Your task to perform on an android device: uninstall "File Manager" Image 0: 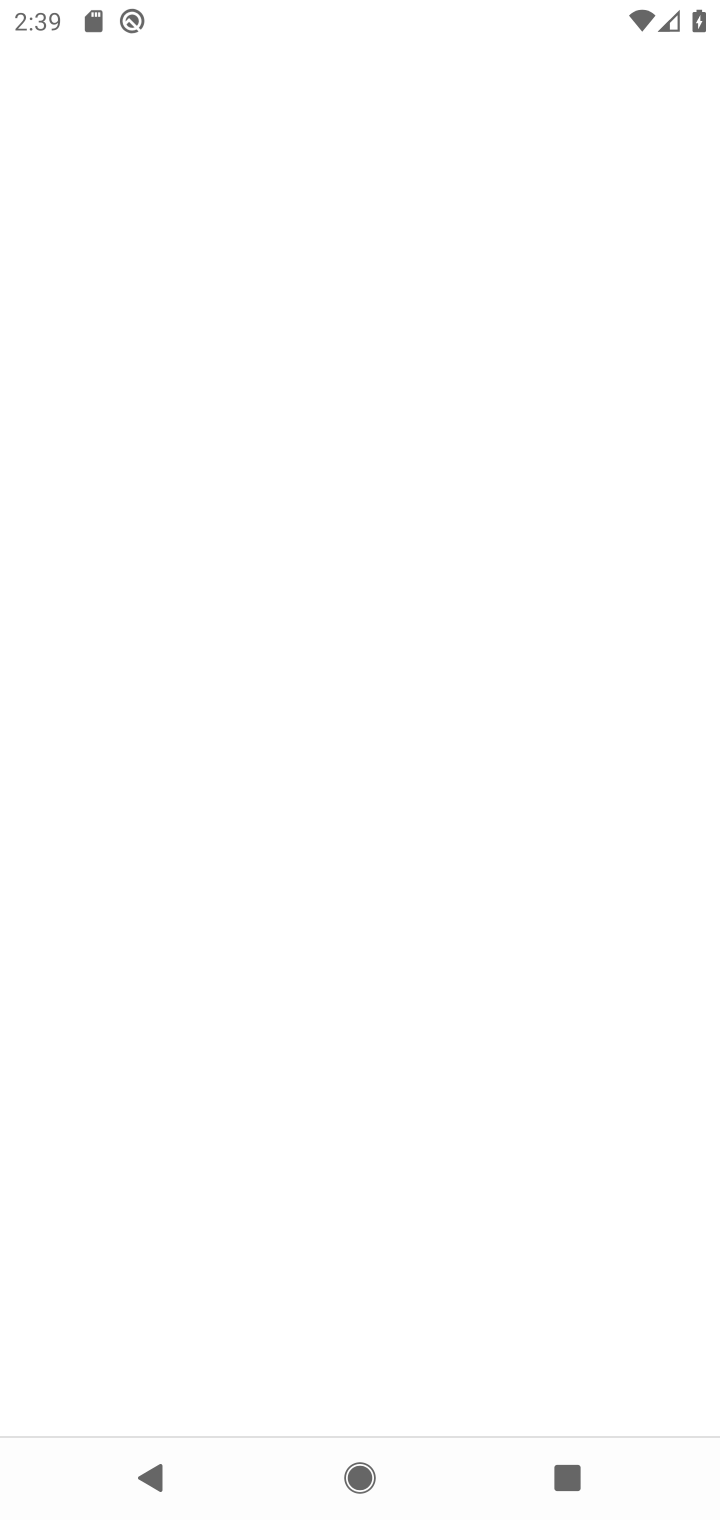
Step 0: press home button
Your task to perform on an android device: uninstall "File Manager" Image 1: 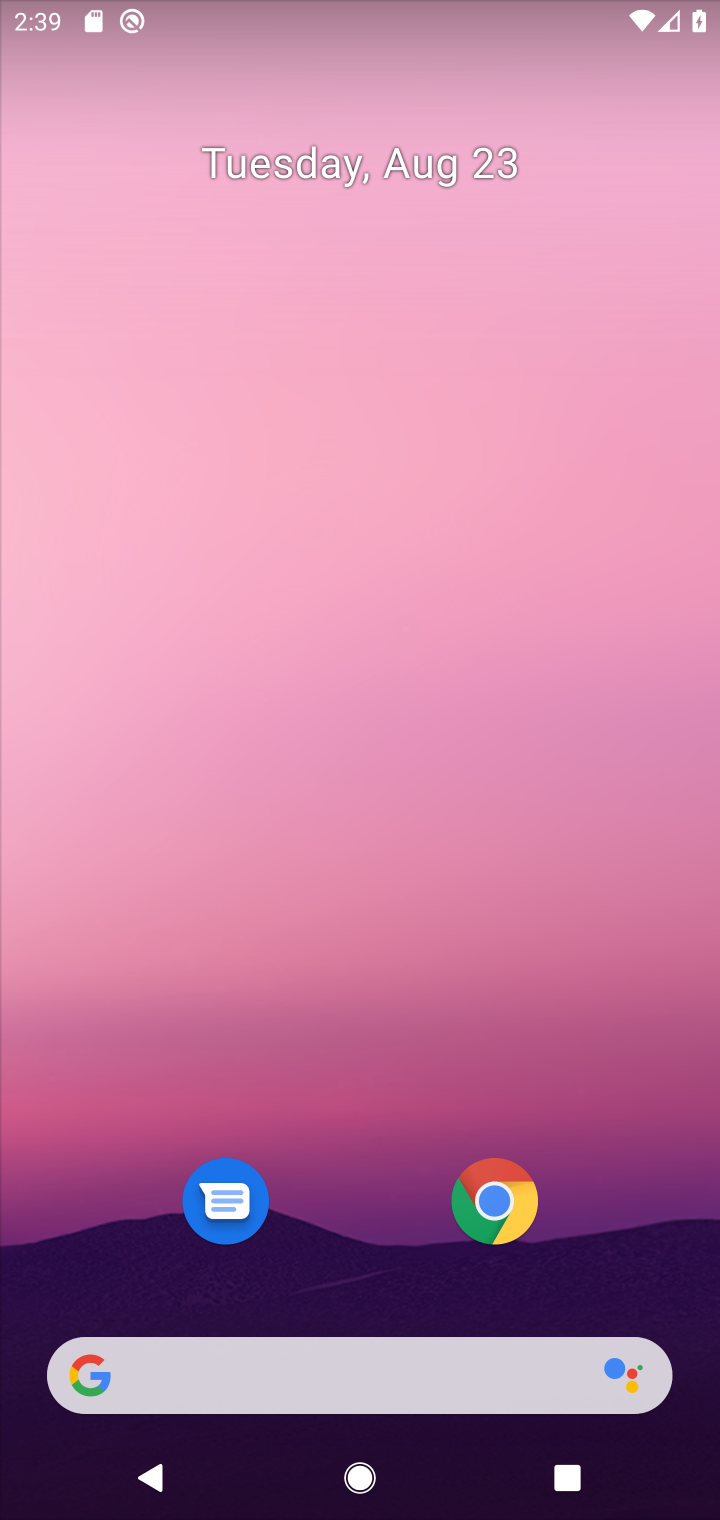
Step 1: drag from (683, 1285) to (575, 554)
Your task to perform on an android device: uninstall "File Manager" Image 2: 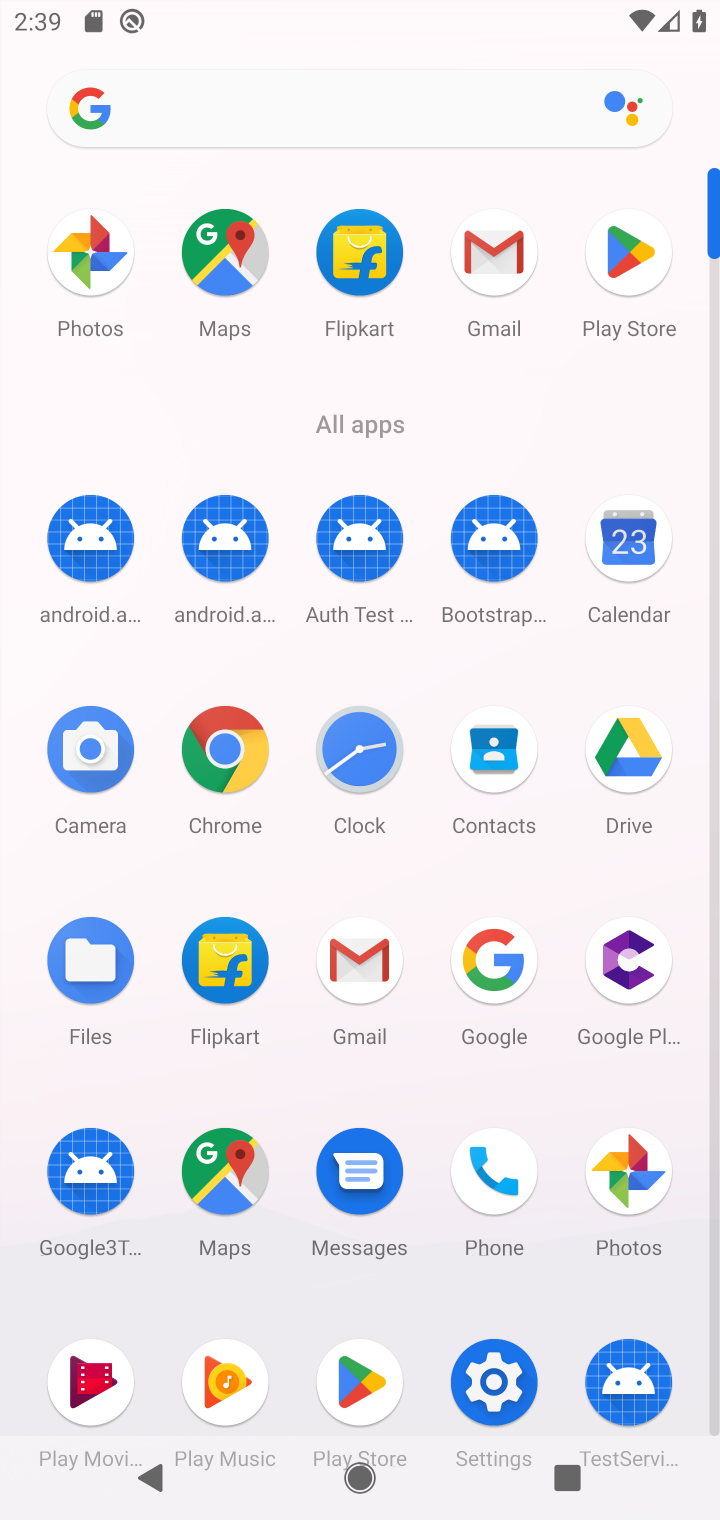
Step 2: click (715, 1380)
Your task to perform on an android device: uninstall "File Manager" Image 3: 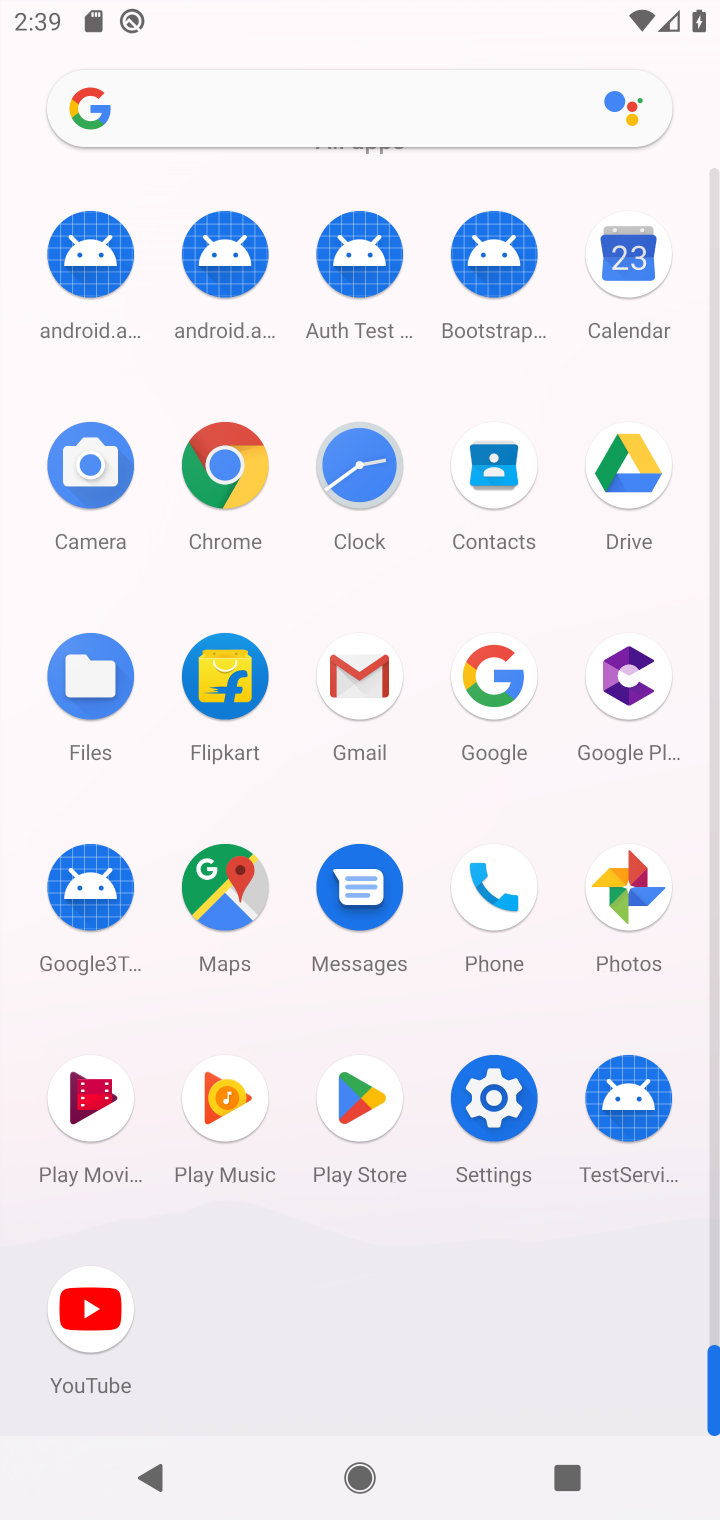
Step 3: click (363, 1090)
Your task to perform on an android device: uninstall "File Manager" Image 4: 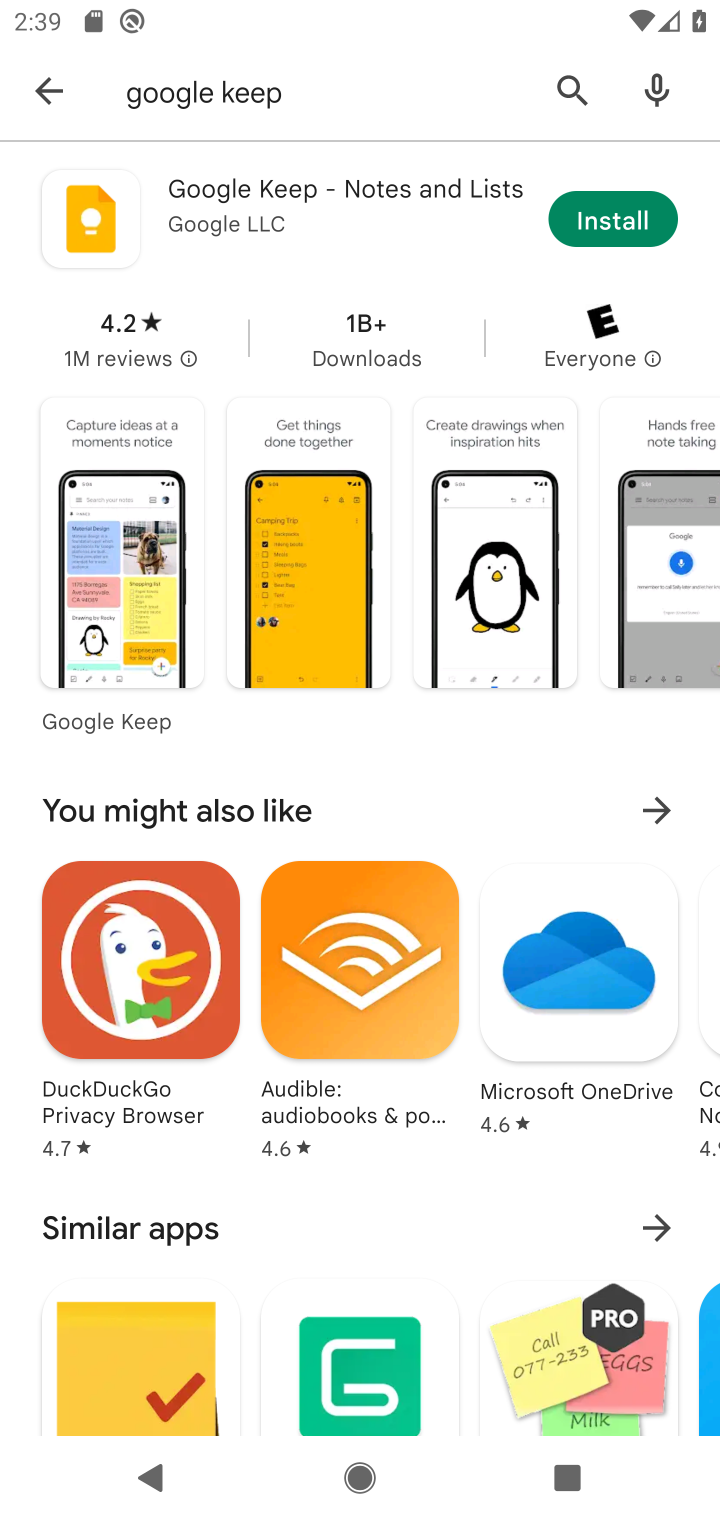
Step 4: click (550, 78)
Your task to perform on an android device: uninstall "File Manager" Image 5: 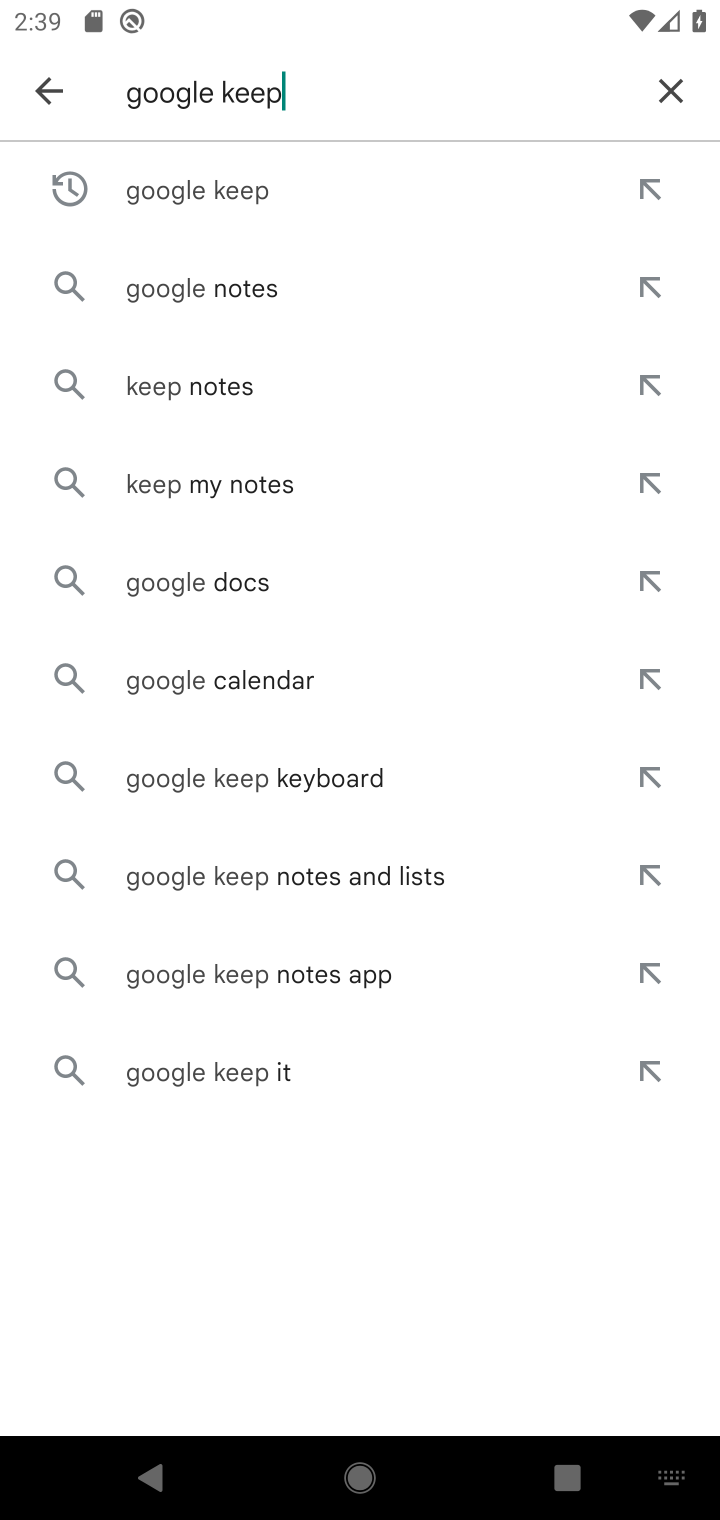
Step 5: click (678, 90)
Your task to perform on an android device: uninstall "File Manager" Image 6: 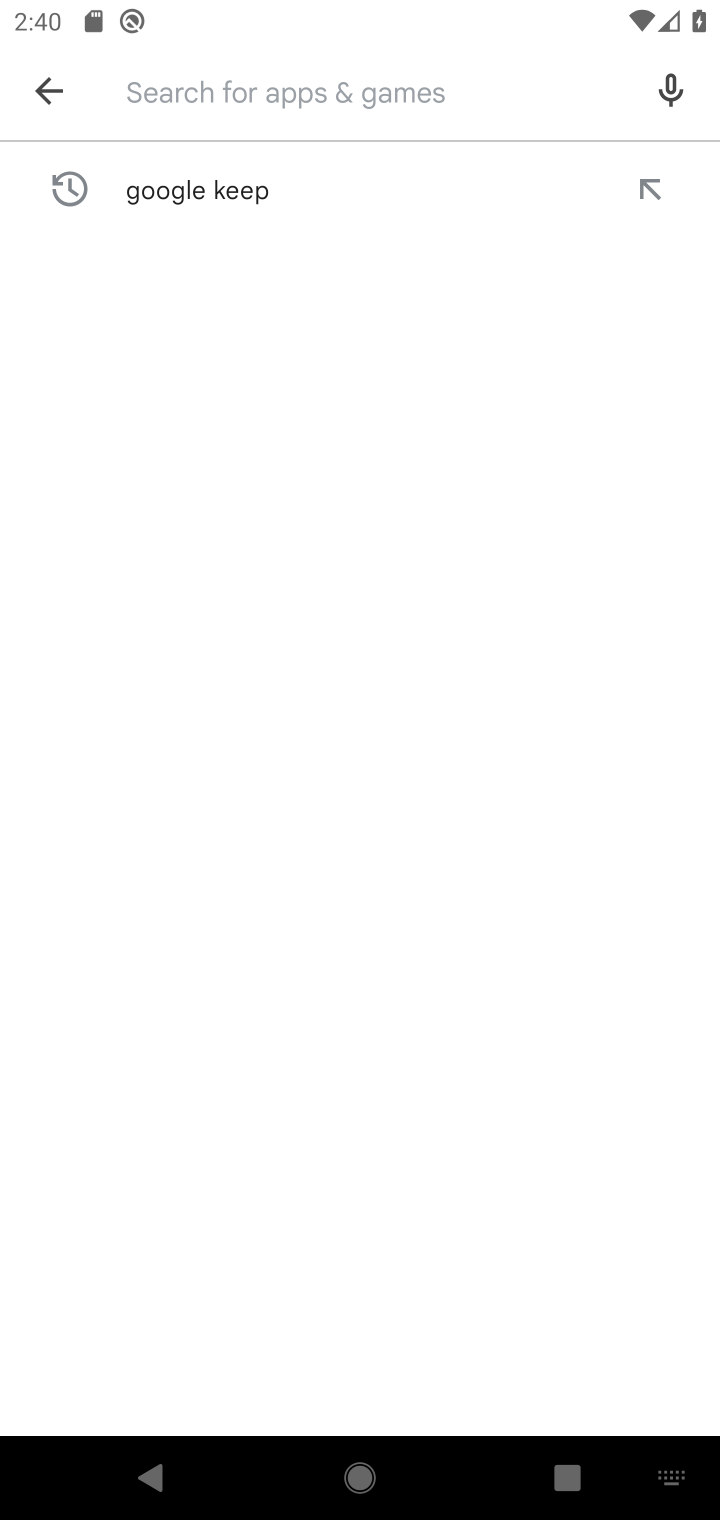
Step 6: type "File Manager"
Your task to perform on an android device: uninstall "File Manager" Image 7: 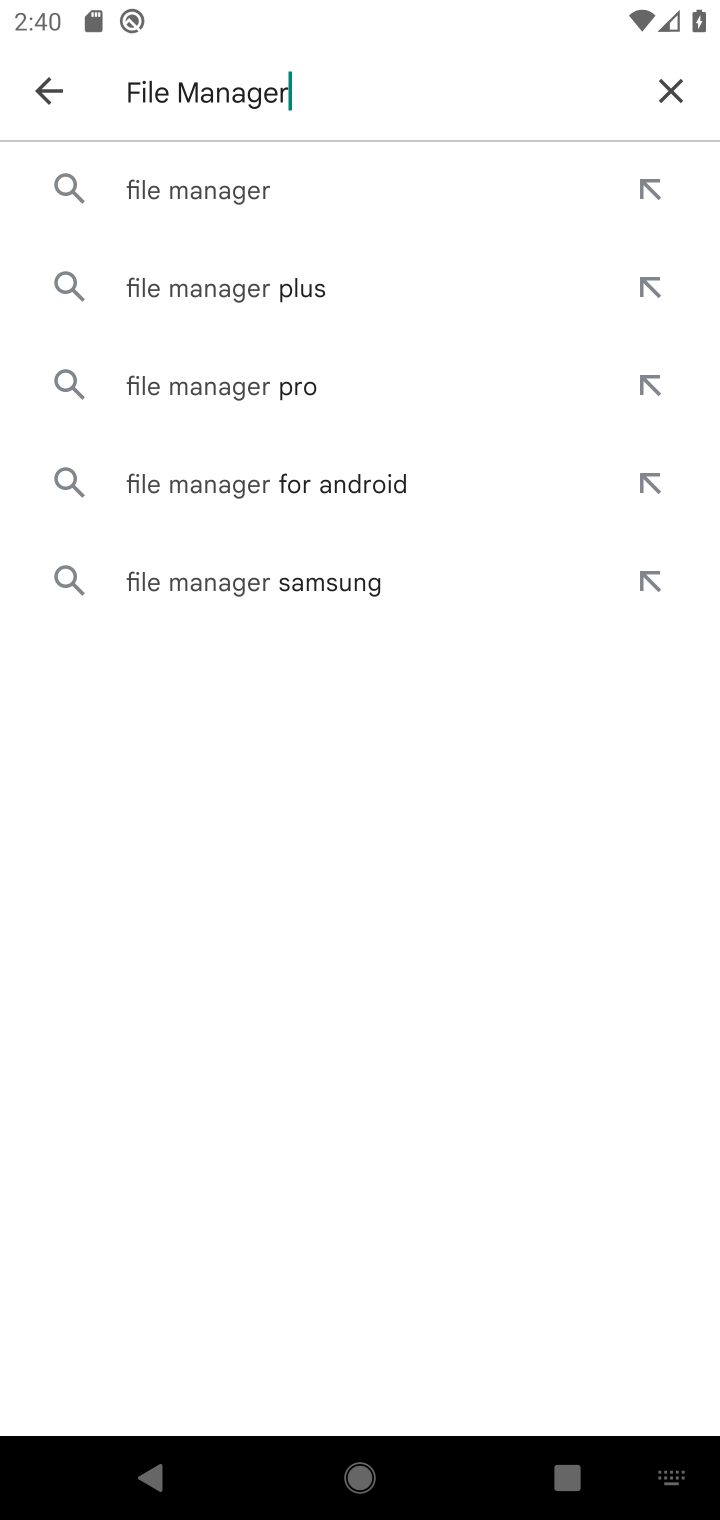
Step 7: click (153, 187)
Your task to perform on an android device: uninstall "File Manager" Image 8: 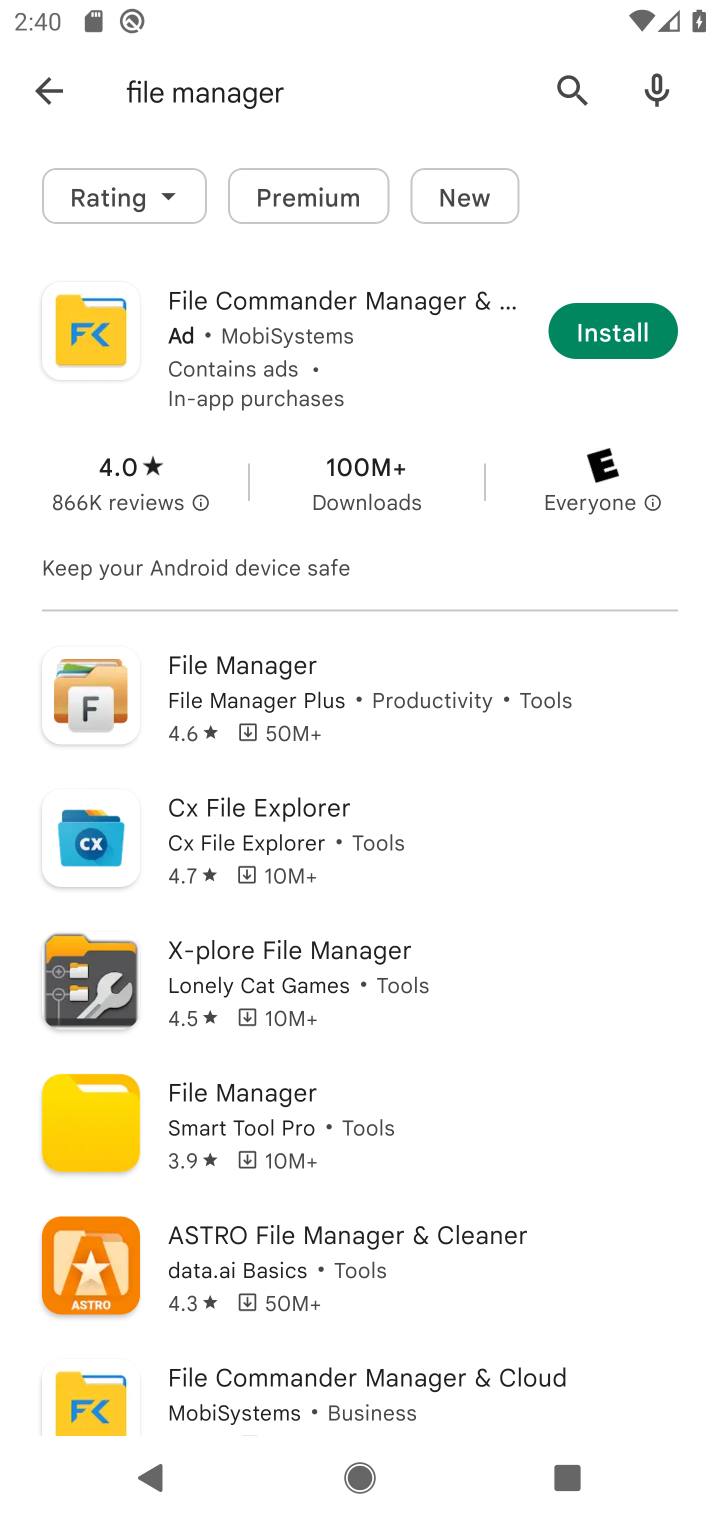
Step 8: click (230, 685)
Your task to perform on an android device: uninstall "File Manager" Image 9: 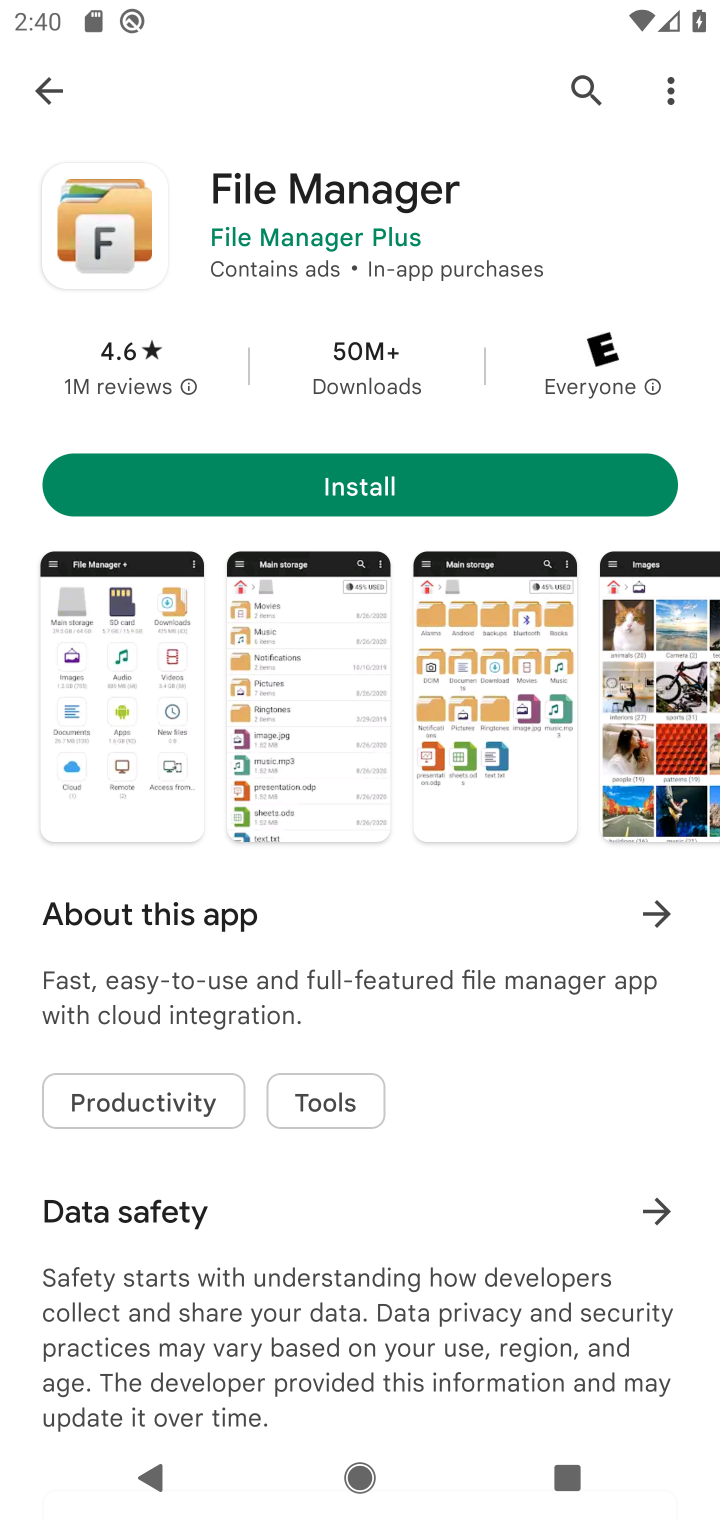
Step 9: task complete